Your task to perform on an android device: turn pop-ups on in chrome Image 0: 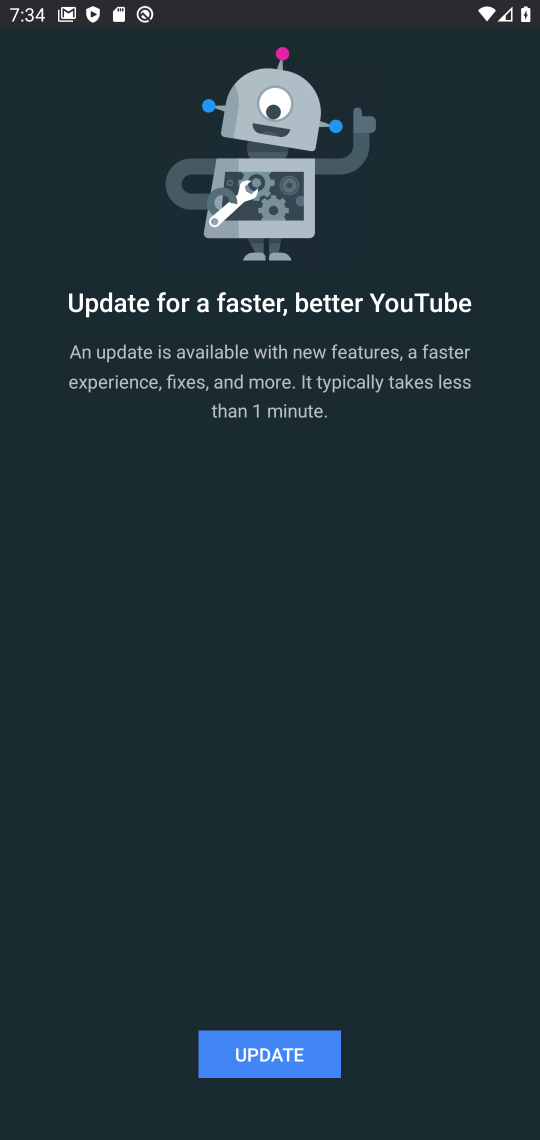
Step 0: press home button
Your task to perform on an android device: turn pop-ups on in chrome Image 1: 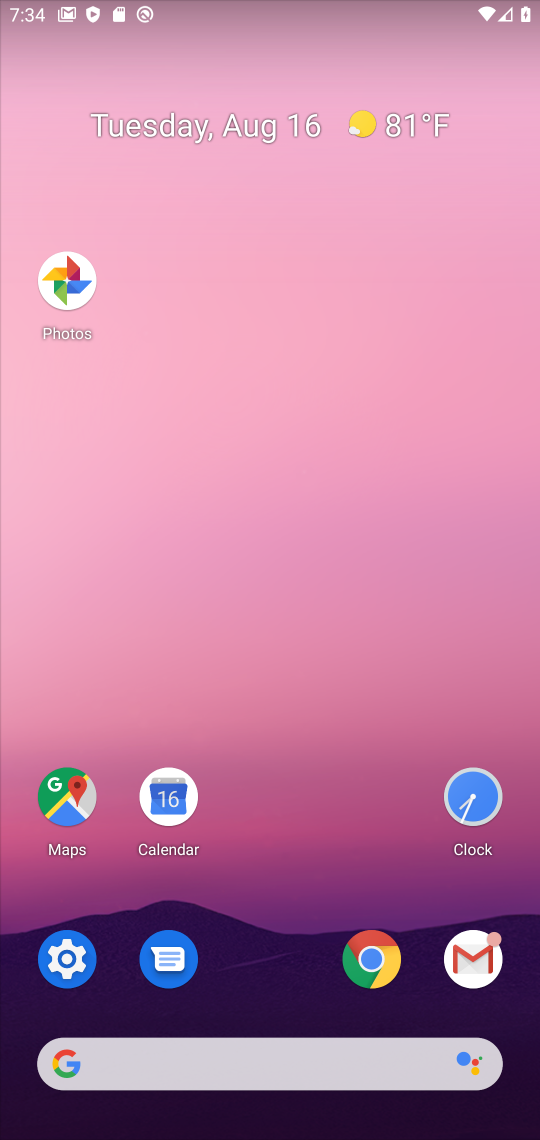
Step 1: click (376, 967)
Your task to perform on an android device: turn pop-ups on in chrome Image 2: 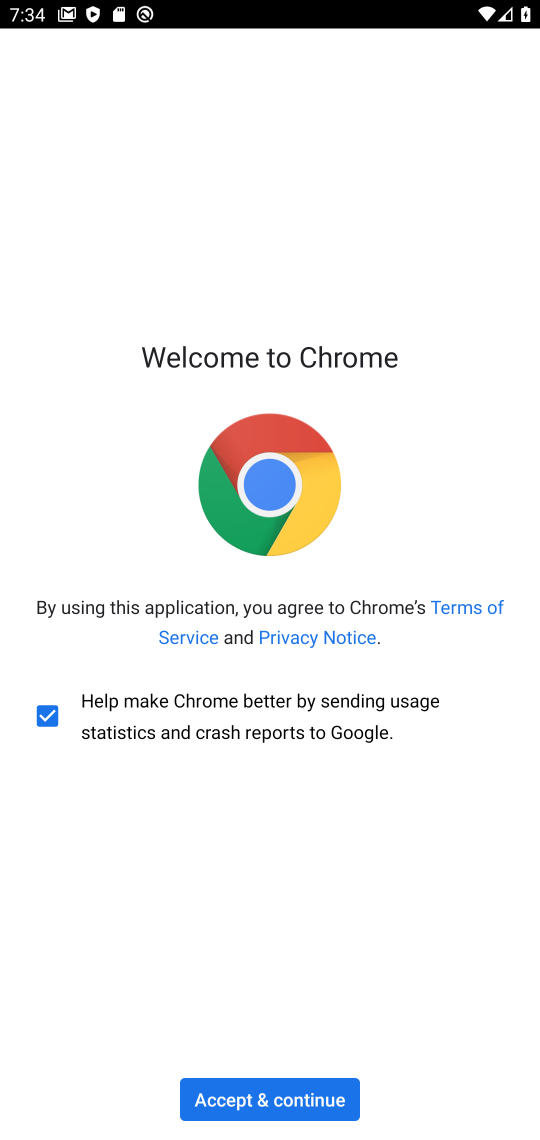
Step 2: click (255, 1090)
Your task to perform on an android device: turn pop-ups on in chrome Image 3: 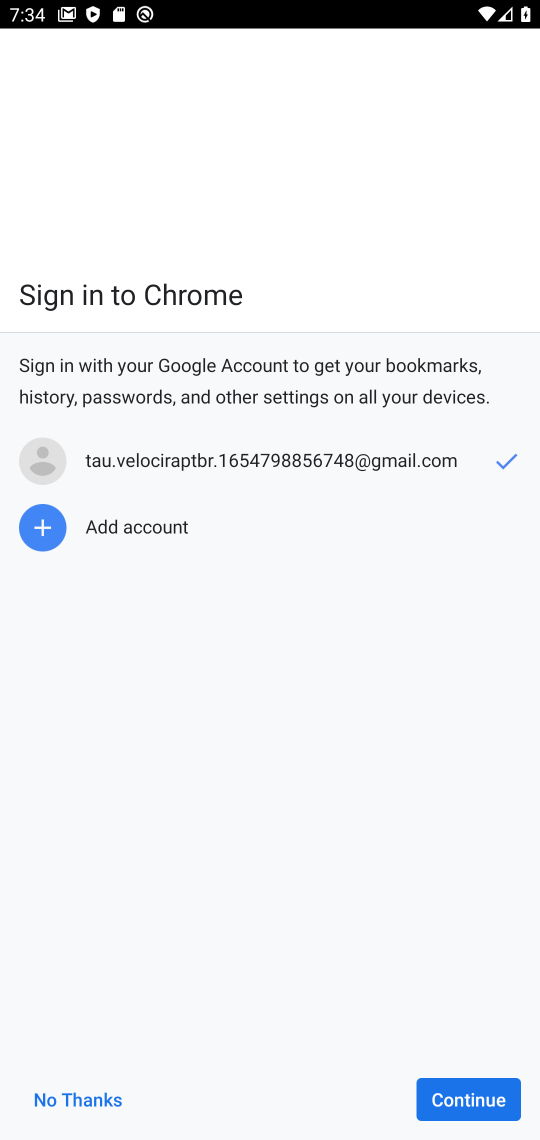
Step 3: click (439, 1098)
Your task to perform on an android device: turn pop-ups on in chrome Image 4: 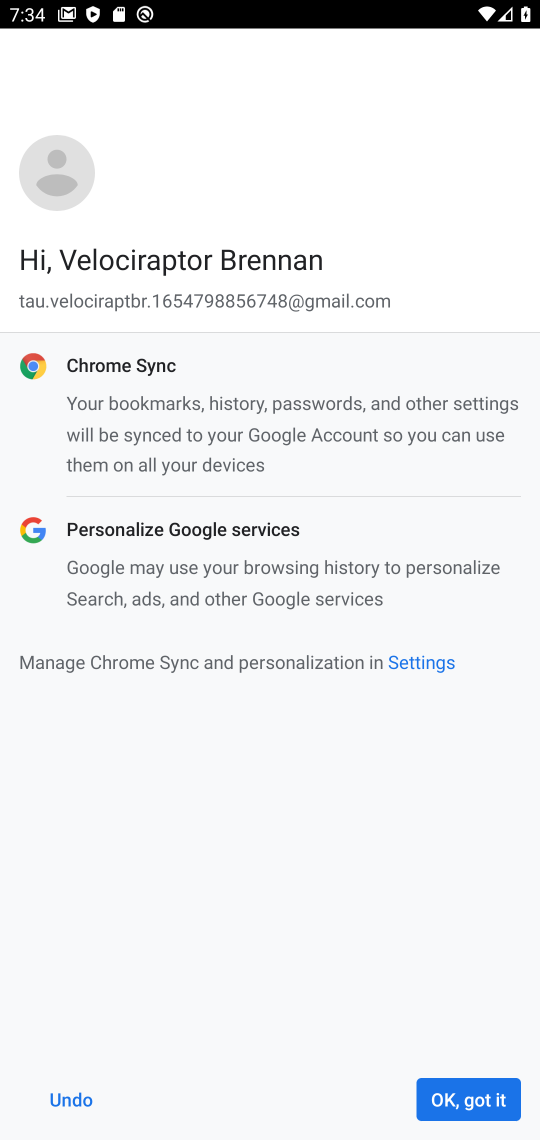
Step 4: click (468, 1095)
Your task to perform on an android device: turn pop-ups on in chrome Image 5: 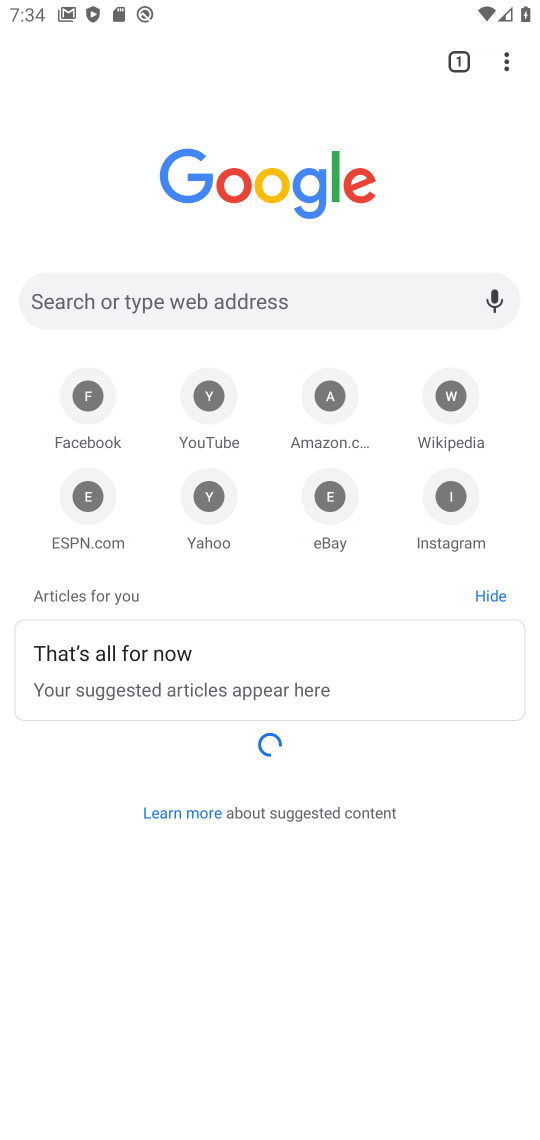
Step 5: click (504, 63)
Your task to perform on an android device: turn pop-ups on in chrome Image 6: 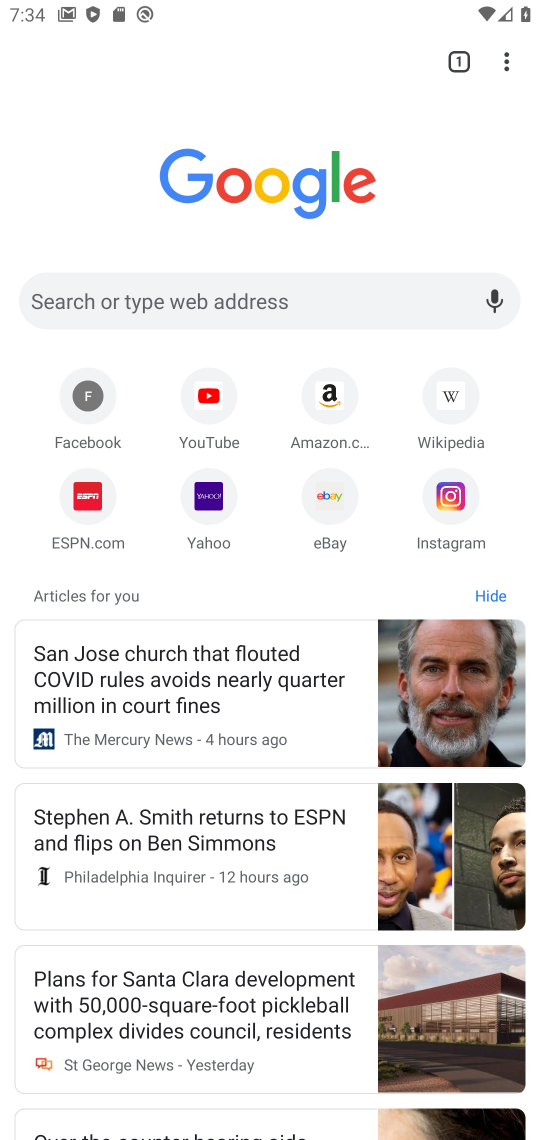
Step 6: click (491, 55)
Your task to perform on an android device: turn pop-ups on in chrome Image 7: 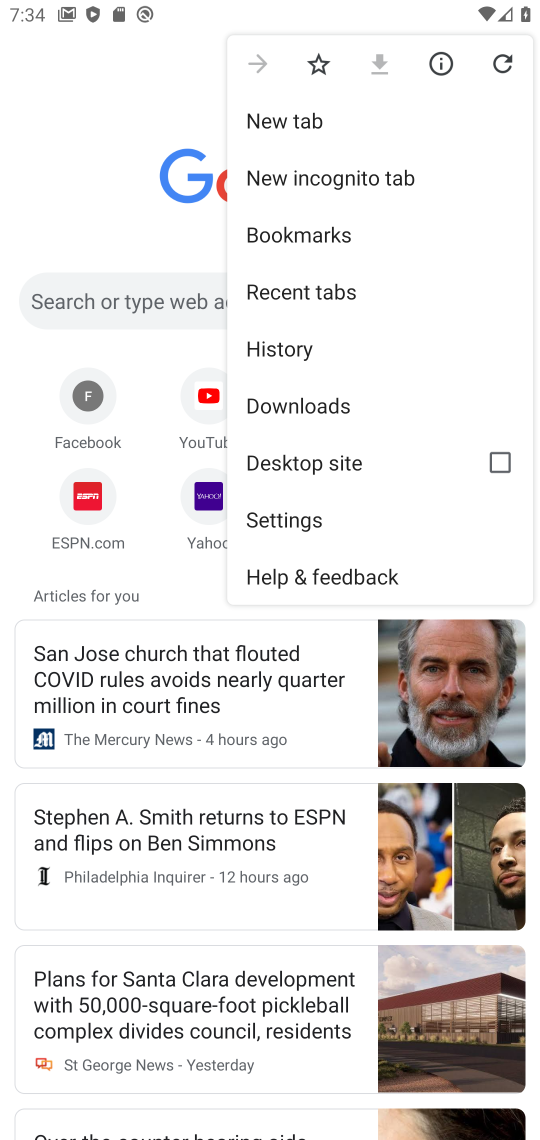
Step 7: click (297, 518)
Your task to perform on an android device: turn pop-ups on in chrome Image 8: 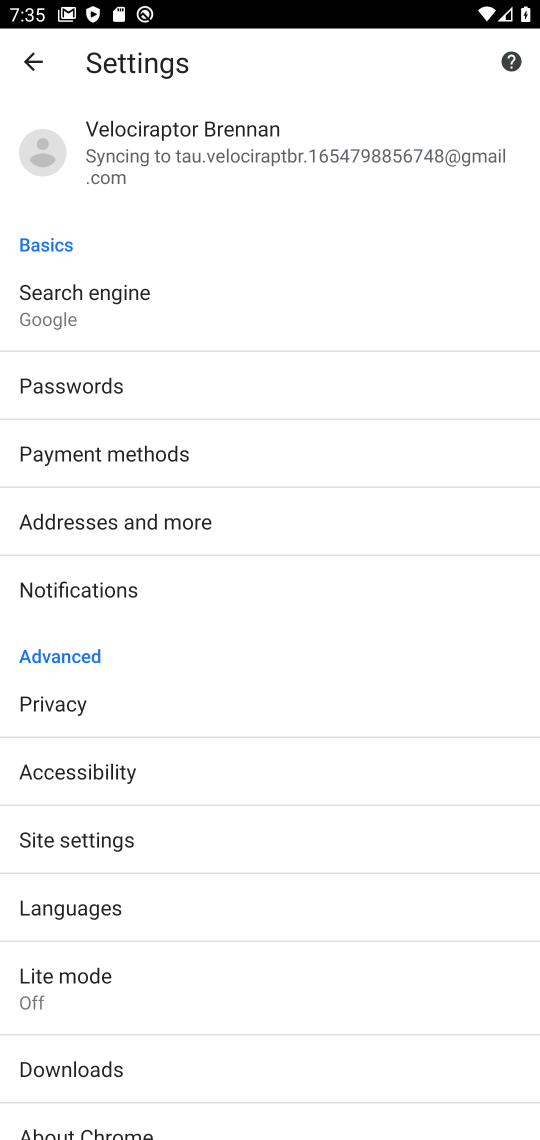
Step 8: click (61, 842)
Your task to perform on an android device: turn pop-ups on in chrome Image 9: 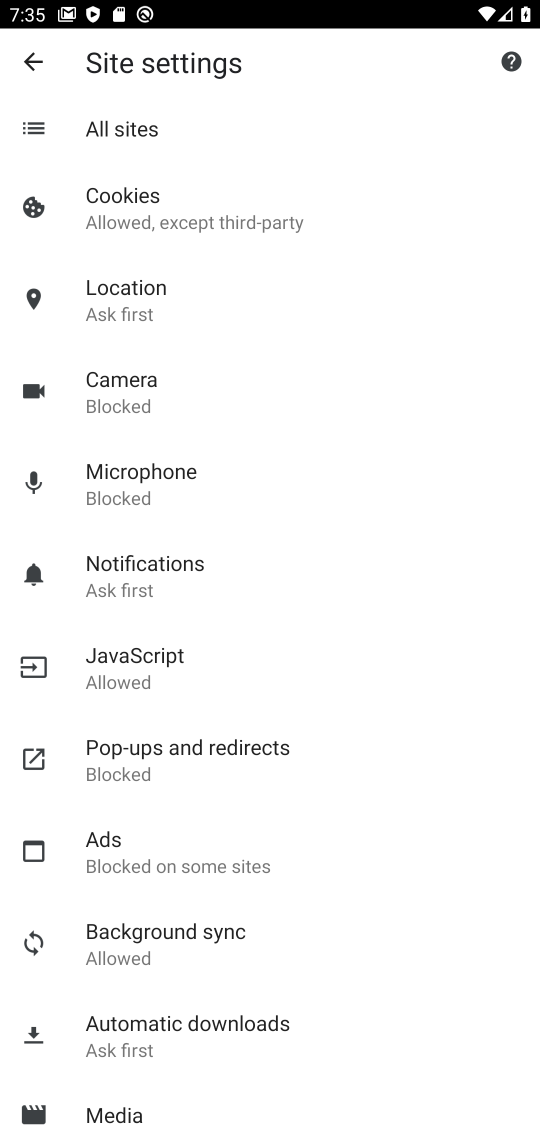
Step 9: click (164, 739)
Your task to perform on an android device: turn pop-ups on in chrome Image 10: 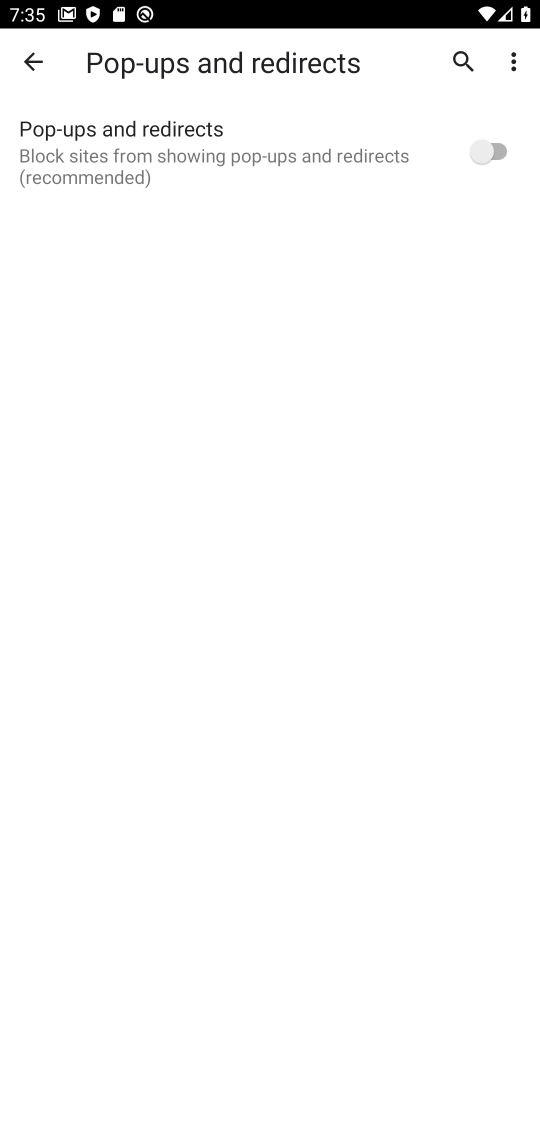
Step 10: click (481, 143)
Your task to perform on an android device: turn pop-ups on in chrome Image 11: 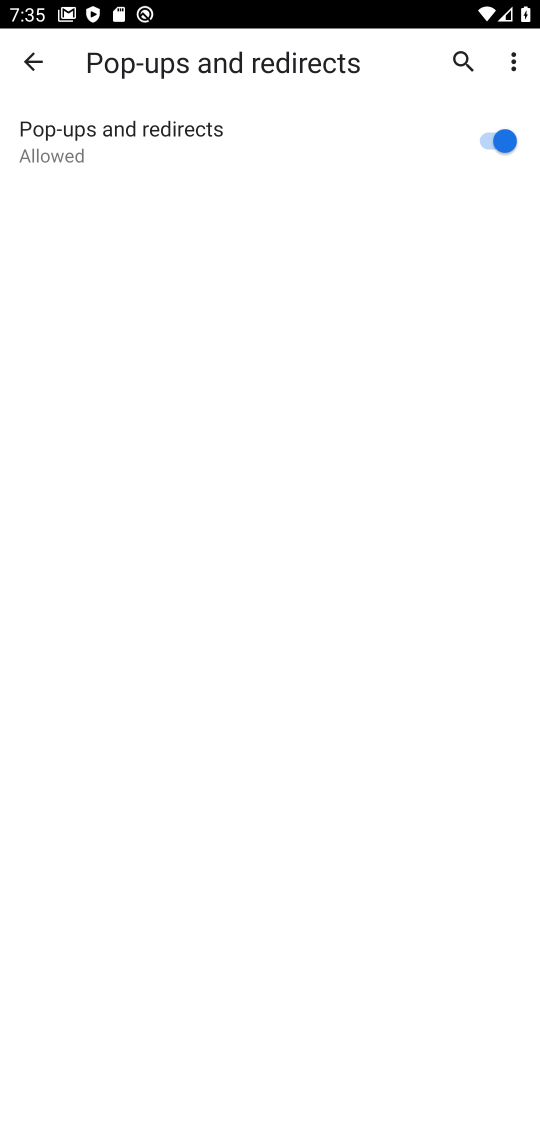
Step 11: task complete